Your task to perform on an android device: Open sound settings Image 0: 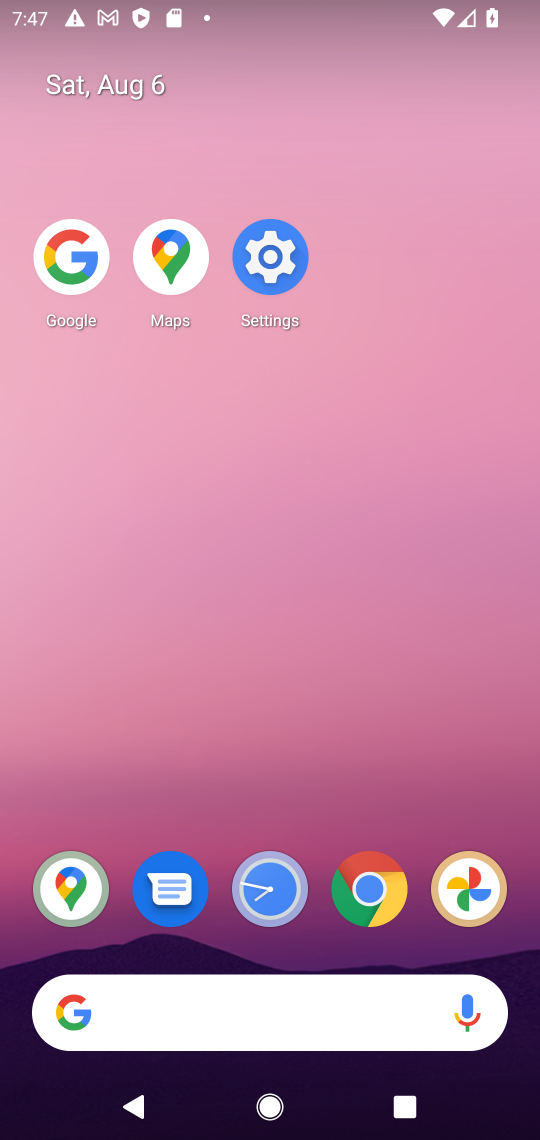
Step 0: click (274, 278)
Your task to perform on an android device: Open sound settings Image 1: 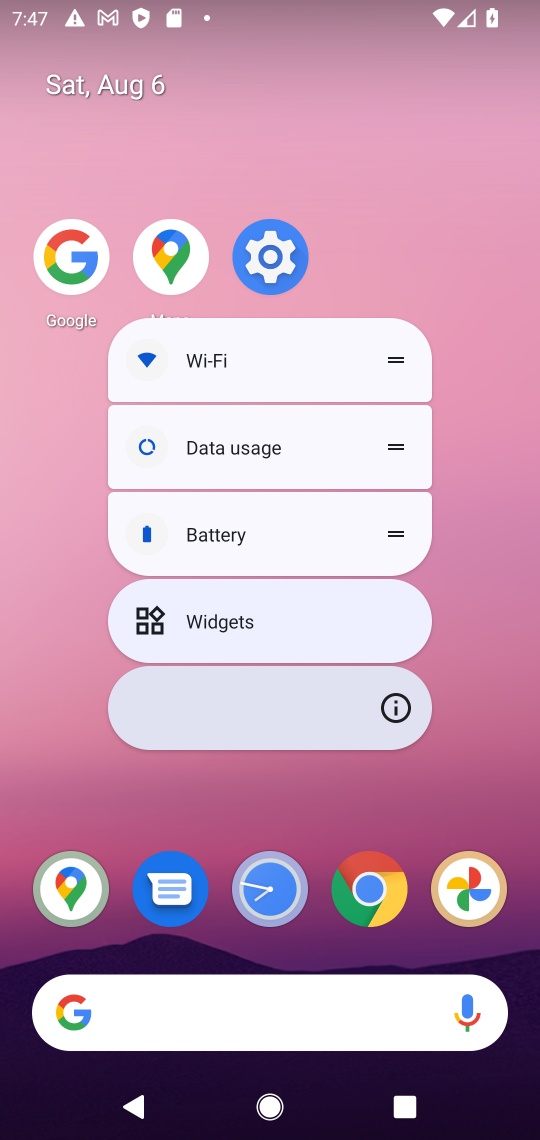
Step 1: click (275, 232)
Your task to perform on an android device: Open sound settings Image 2: 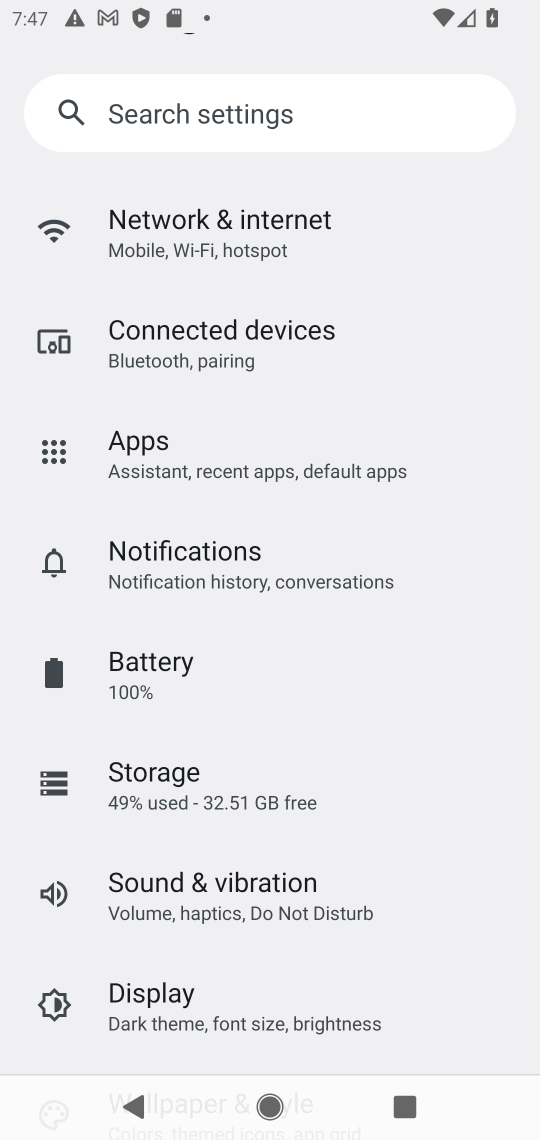
Step 2: drag from (290, 610) to (395, 144)
Your task to perform on an android device: Open sound settings Image 3: 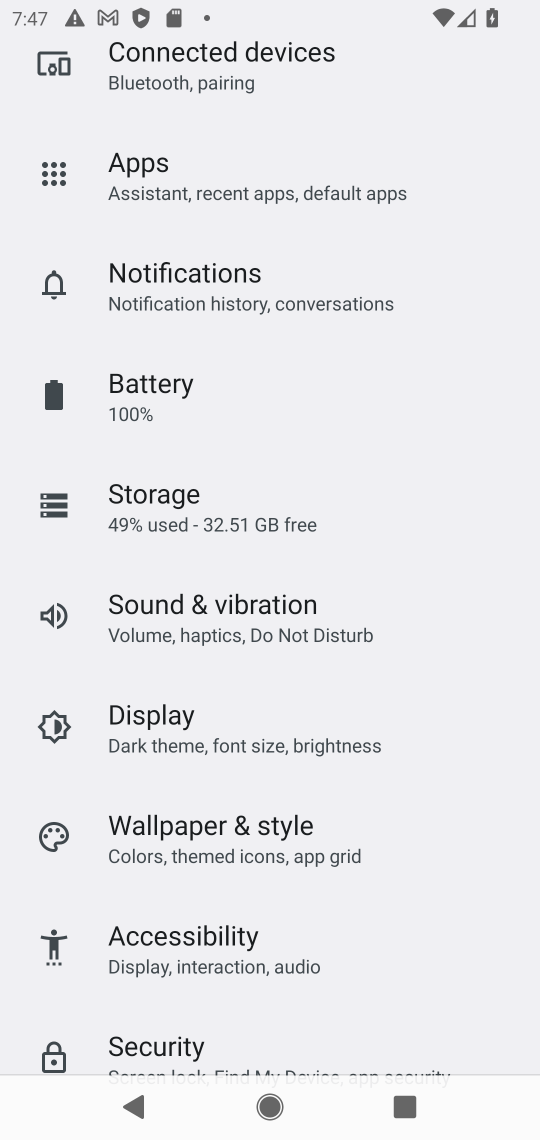
Step 3: click (280, 629)
Your task to perform on an android device: Open sound settings Image 4: 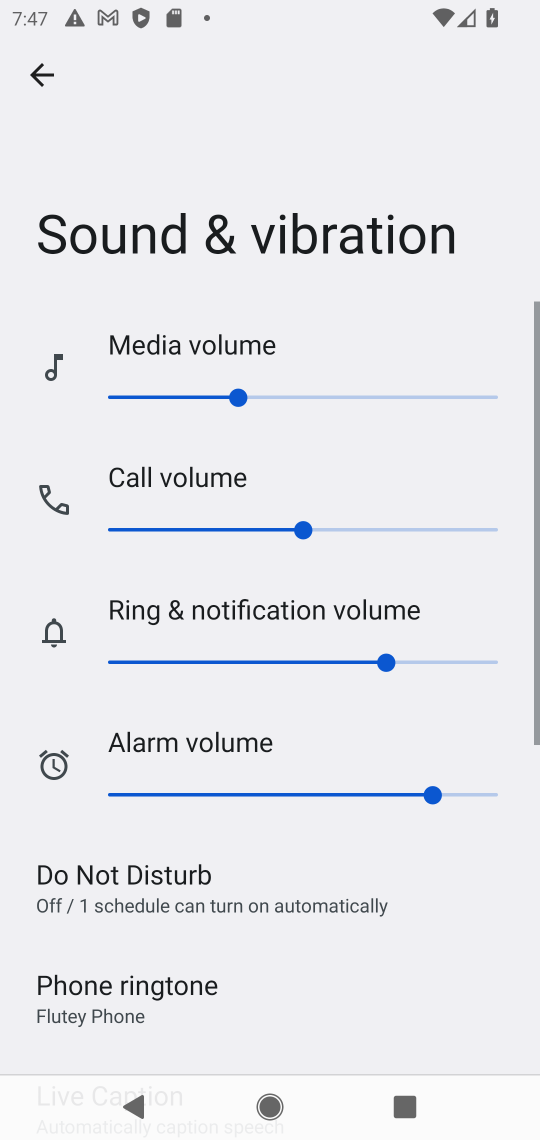
Step 4: task complete